Your task to perform on an android device: Open calendar and show me the fourth week of next month Image 0: 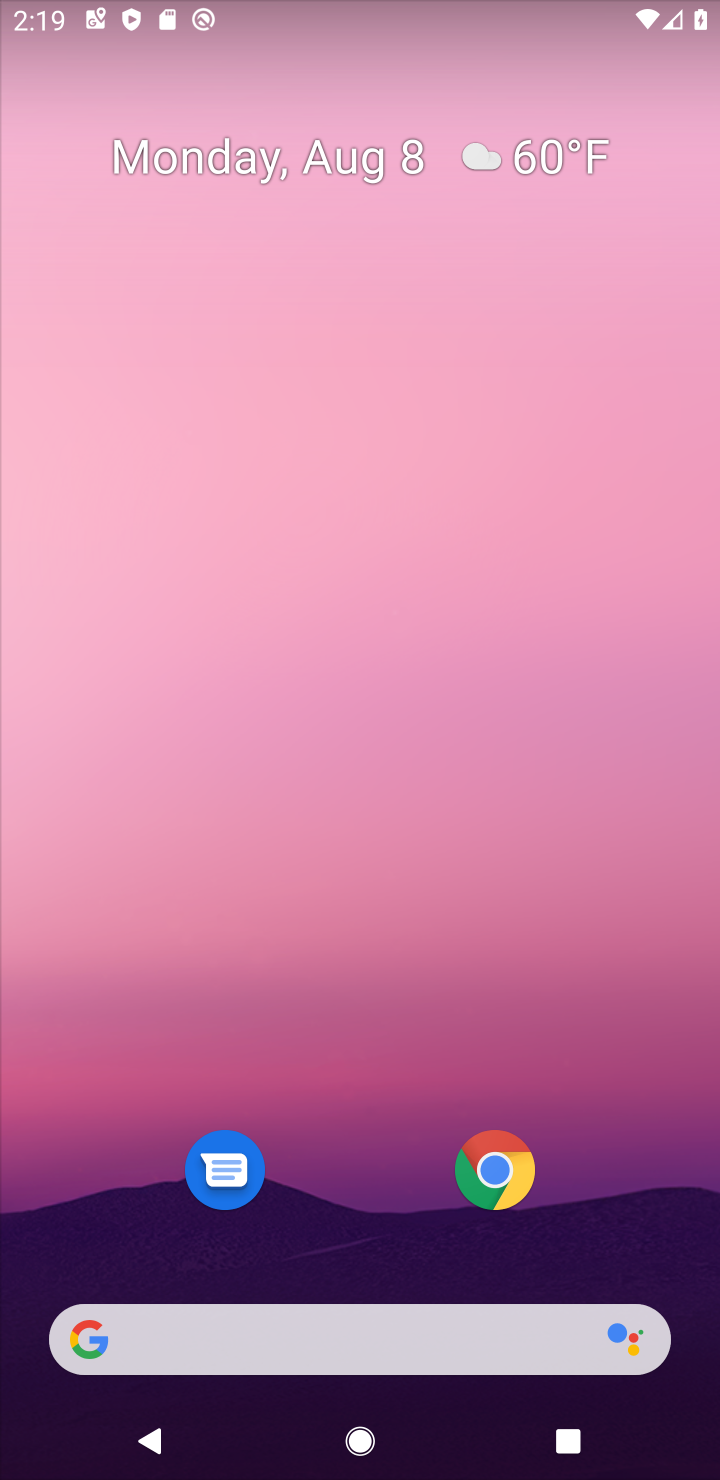
Step 0: drag from (392, 997) to (392, 340)
Your task to perform on an android device: Open calendar and show me the fourth week of next month Image 1: 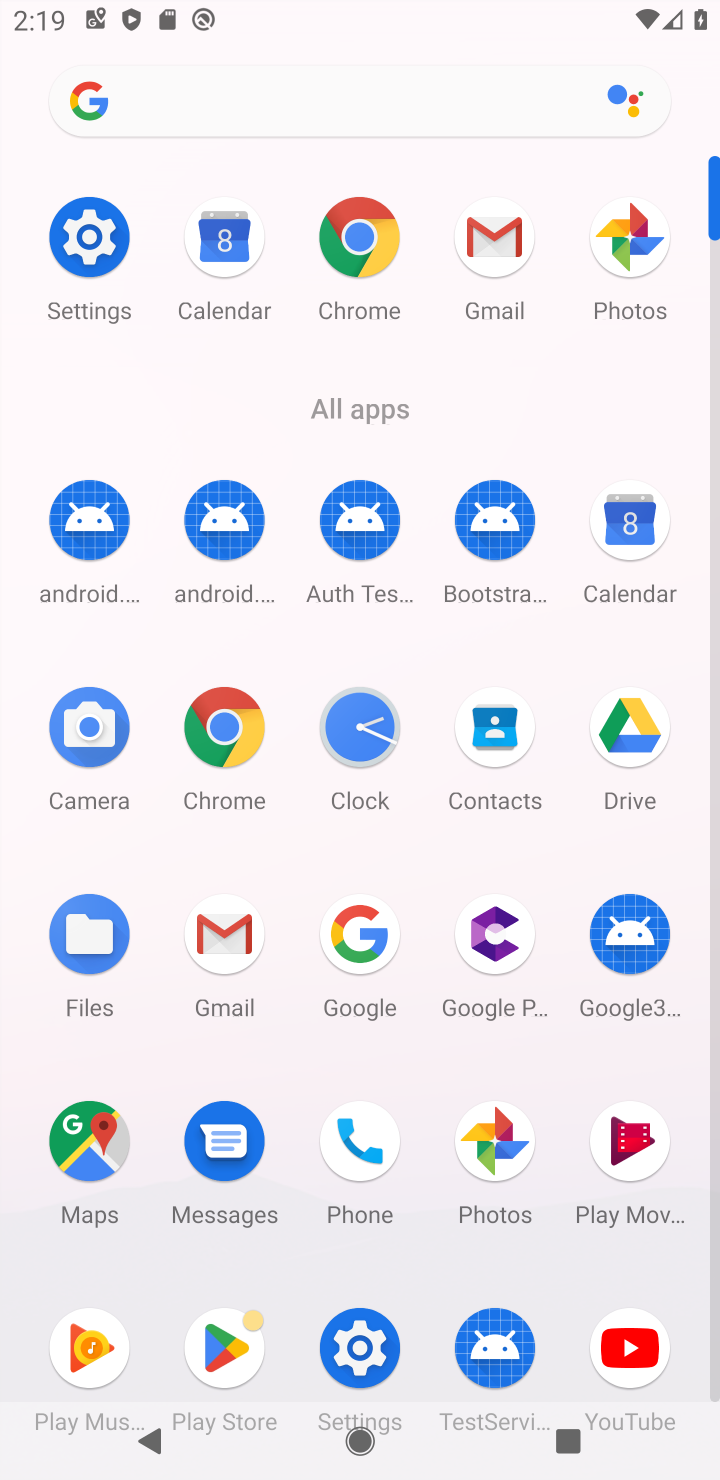
Step 1: click (635, 527)
Your task to perform on an android device: Open calendar and show me the fourth week of next month Image 2: 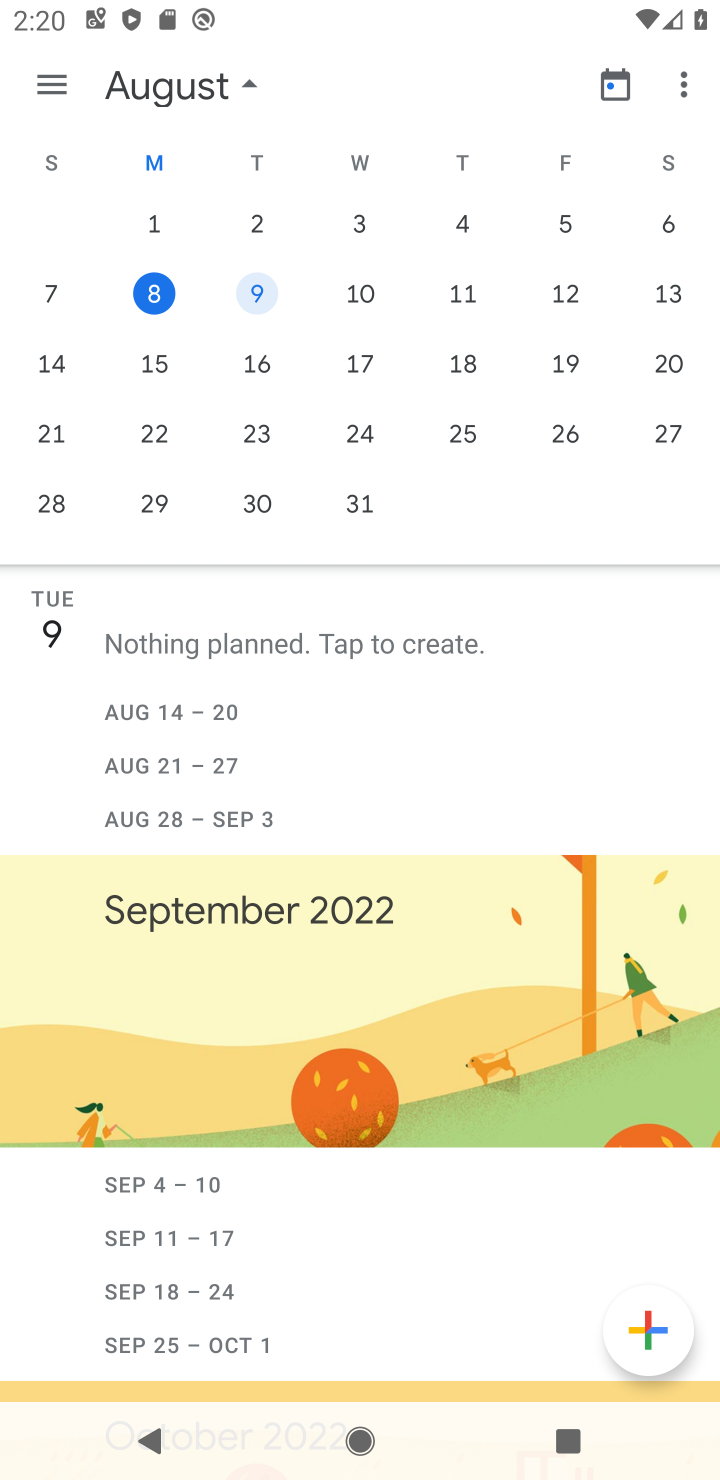
Step 2: drag from (351, 321) to (85, 286)
Your task to perform on an android device: Open calendar and show me the fourth week of next month Image 3: 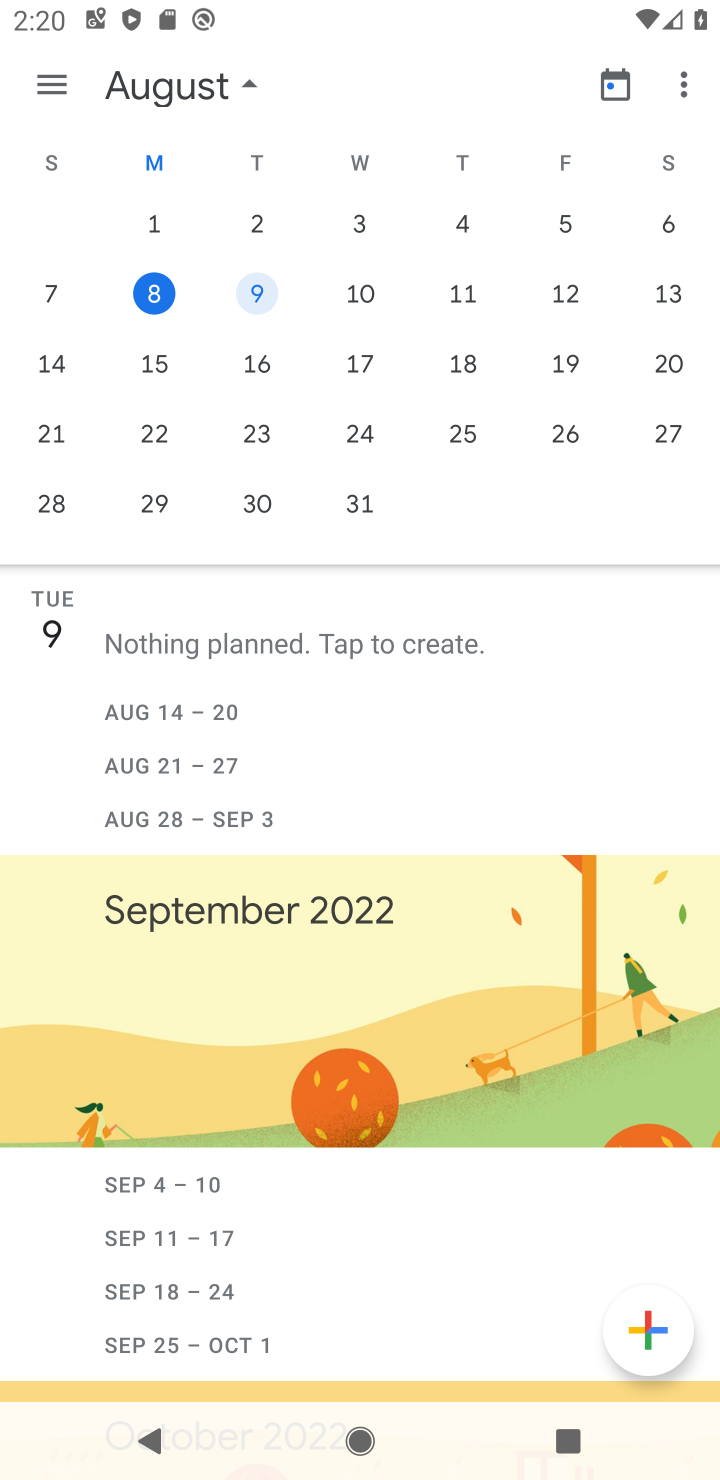
Step 3: drag from (500, 299) to (7, 295)
Your task to perform on an android device: Open calendar and show me the fourth week of next month Image 4: 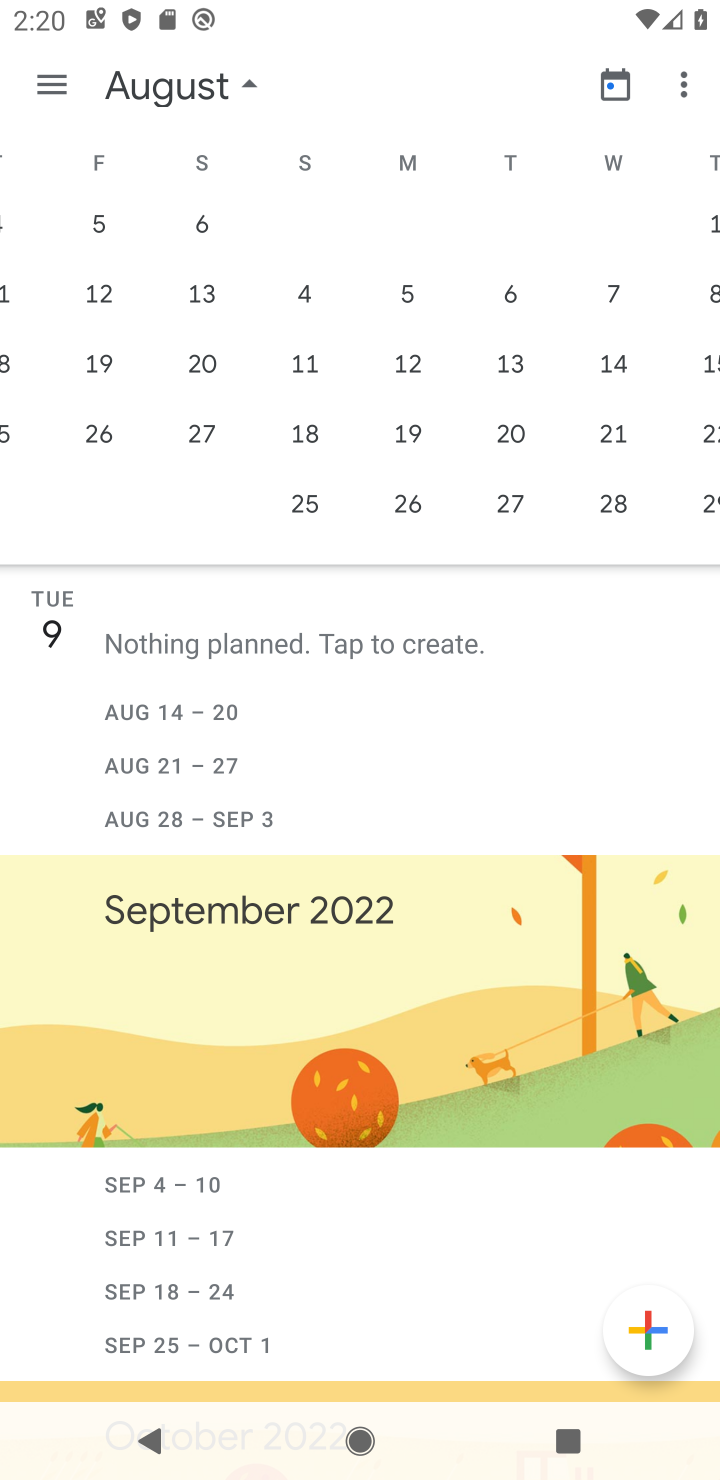
Step 4: drag from (569, 304) to (358, 315)
Your task to perform on an android device: Open calendar and show me the fourth week of next month Image 5: 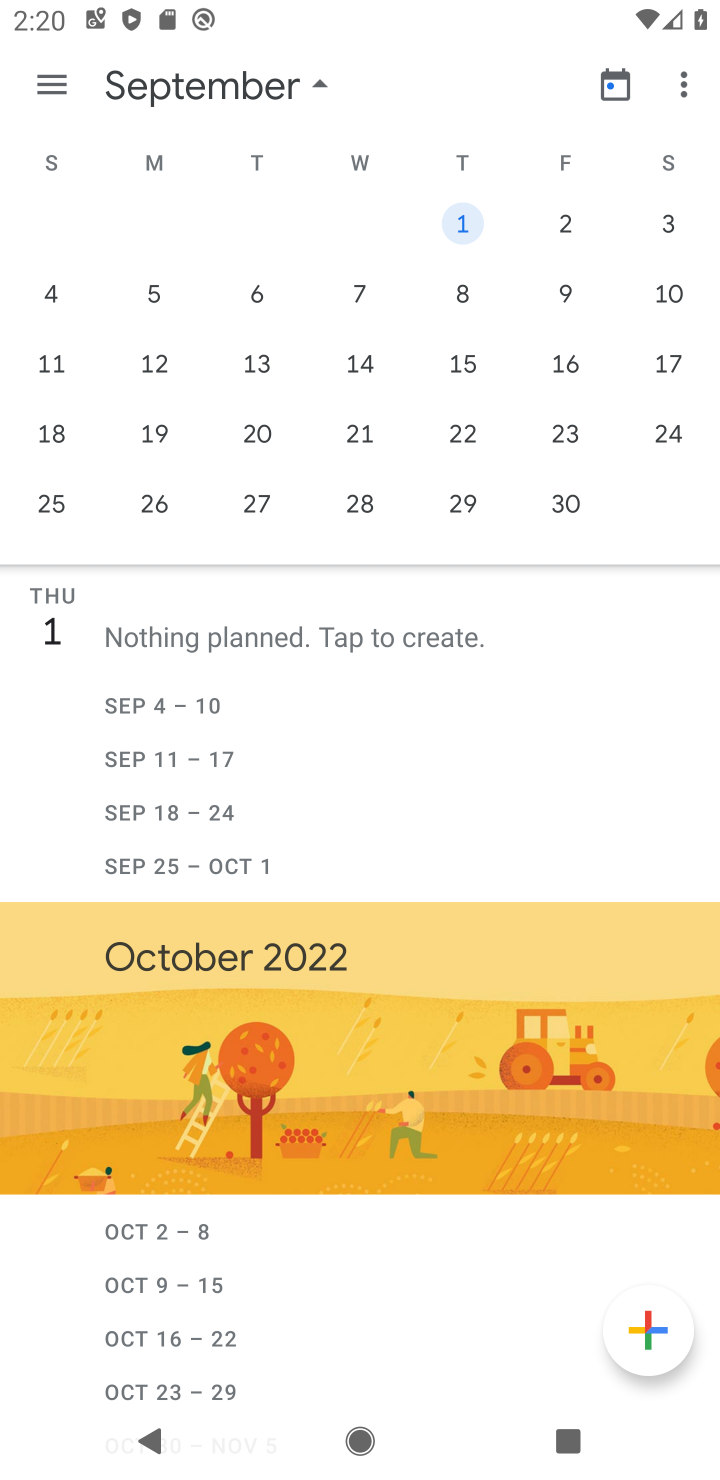
Step 5: click (60, 428)
Your task to perform on an android device: Open calendar and show me the fourth week of next month Image 6: 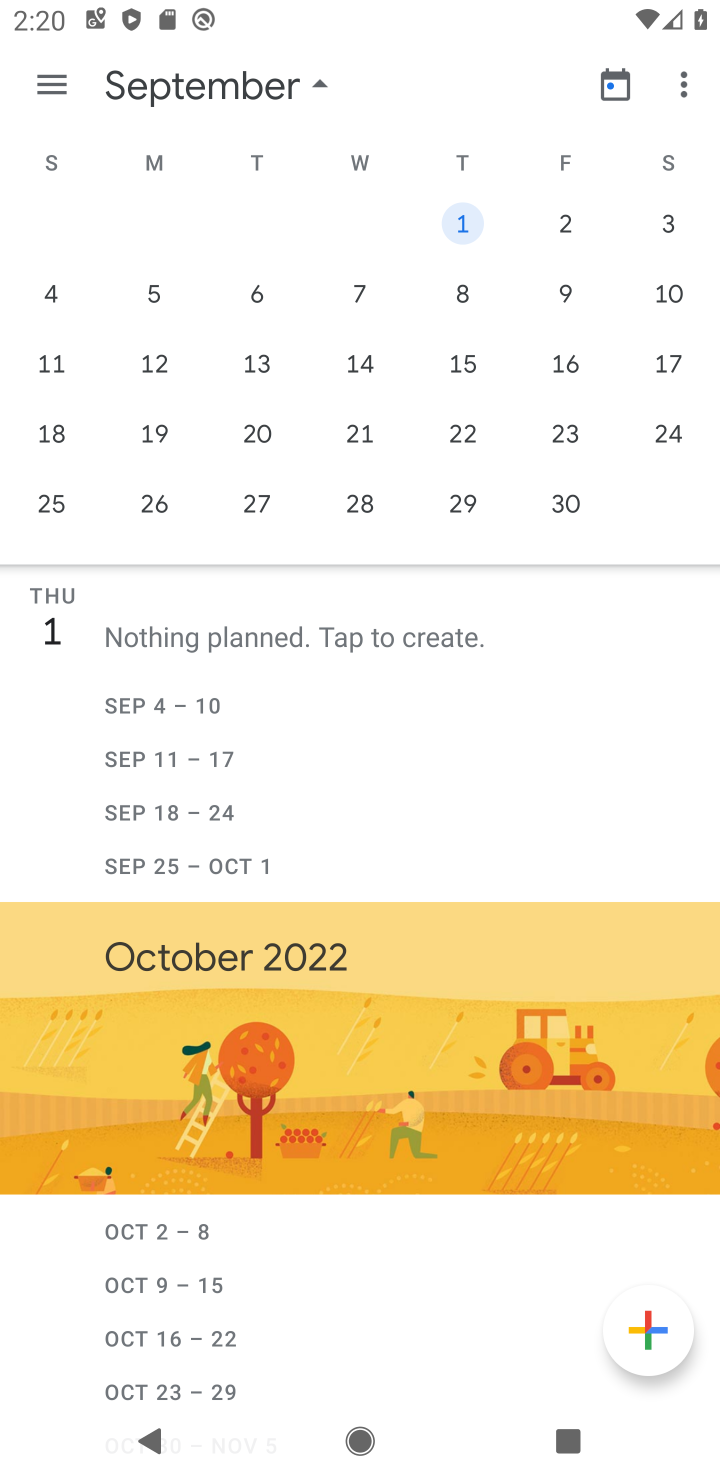
Step 6: click (64, 418)
Your task to perform on an android device: Open calendar and show me the fourth week of next month Image 7: 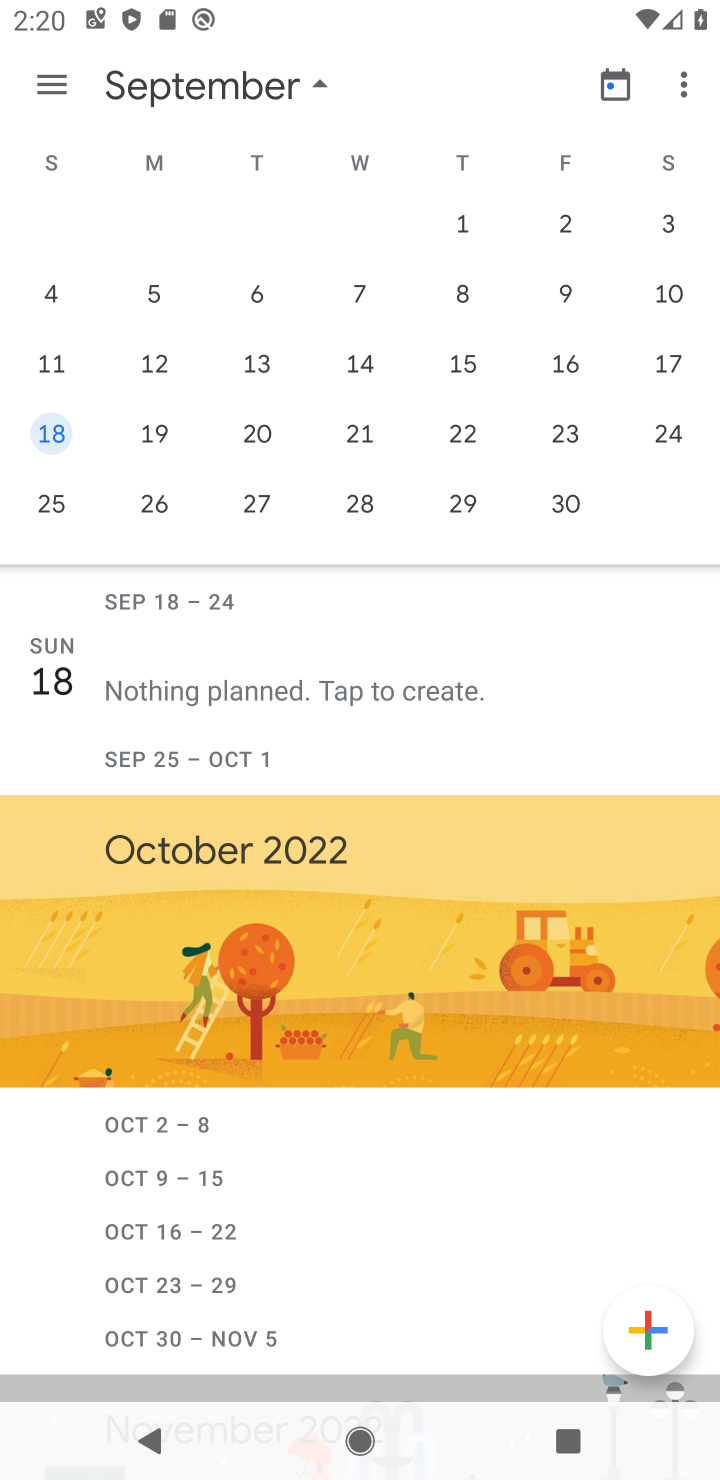
Step 7: task complete